Your task to perform on an android device: delete a single message in the gmail app Image 0: 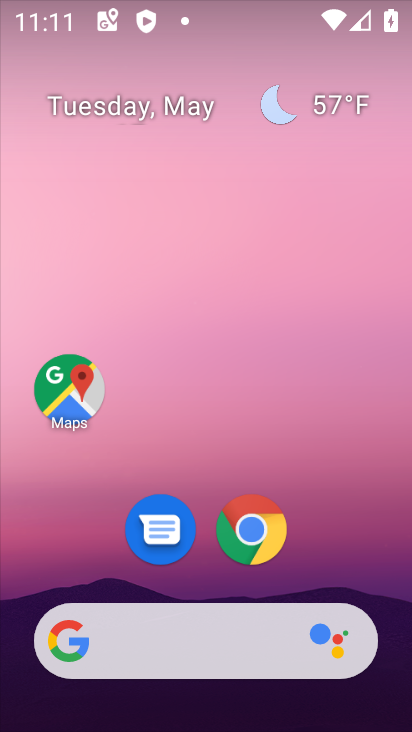
Step 0: drag from (201, 554) to (212, 103)
Your task to perform on an android device: delete a single message in the gmail app Image 1: 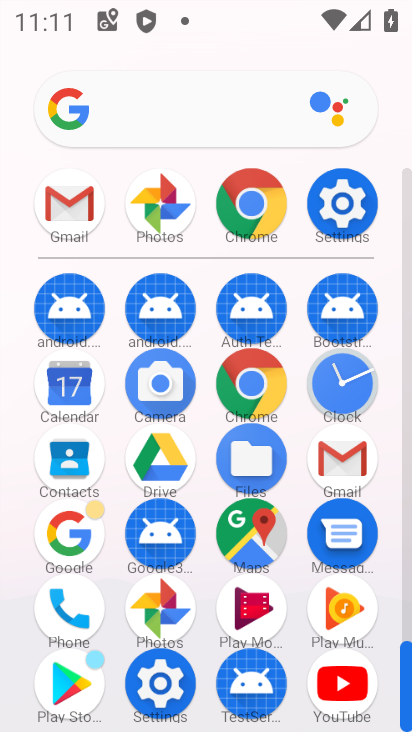
Step 1: click (61, 198)
Your task to perform on an android device: delete a single message in the gmail app Image 2: 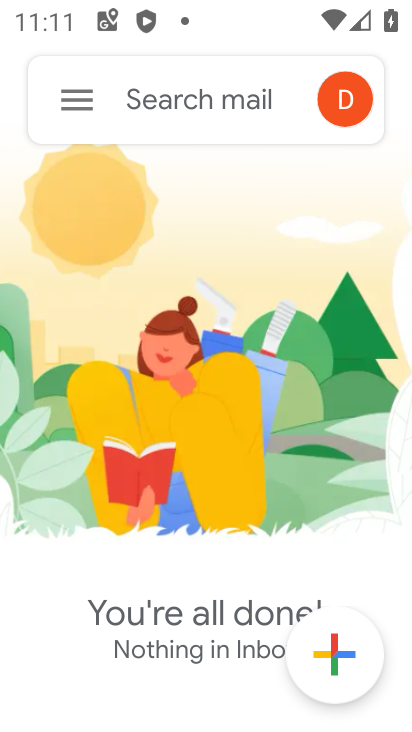
Step 2: task complete